Your task to perform on an android device: Set the phone to "Do not disturb". Image 0: 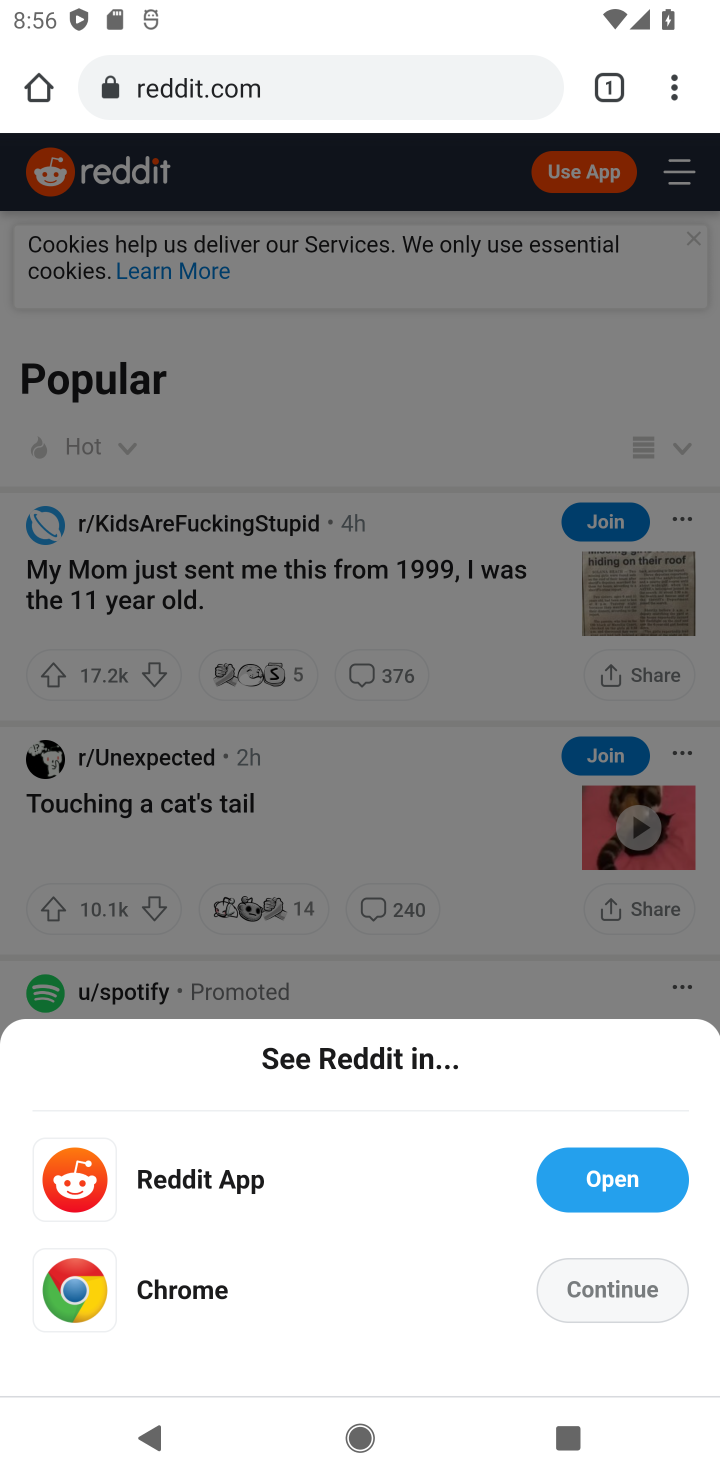
Step 0: press home button
Your task to perform on an android device: Set the phone to "Do not disturb". Image 1: 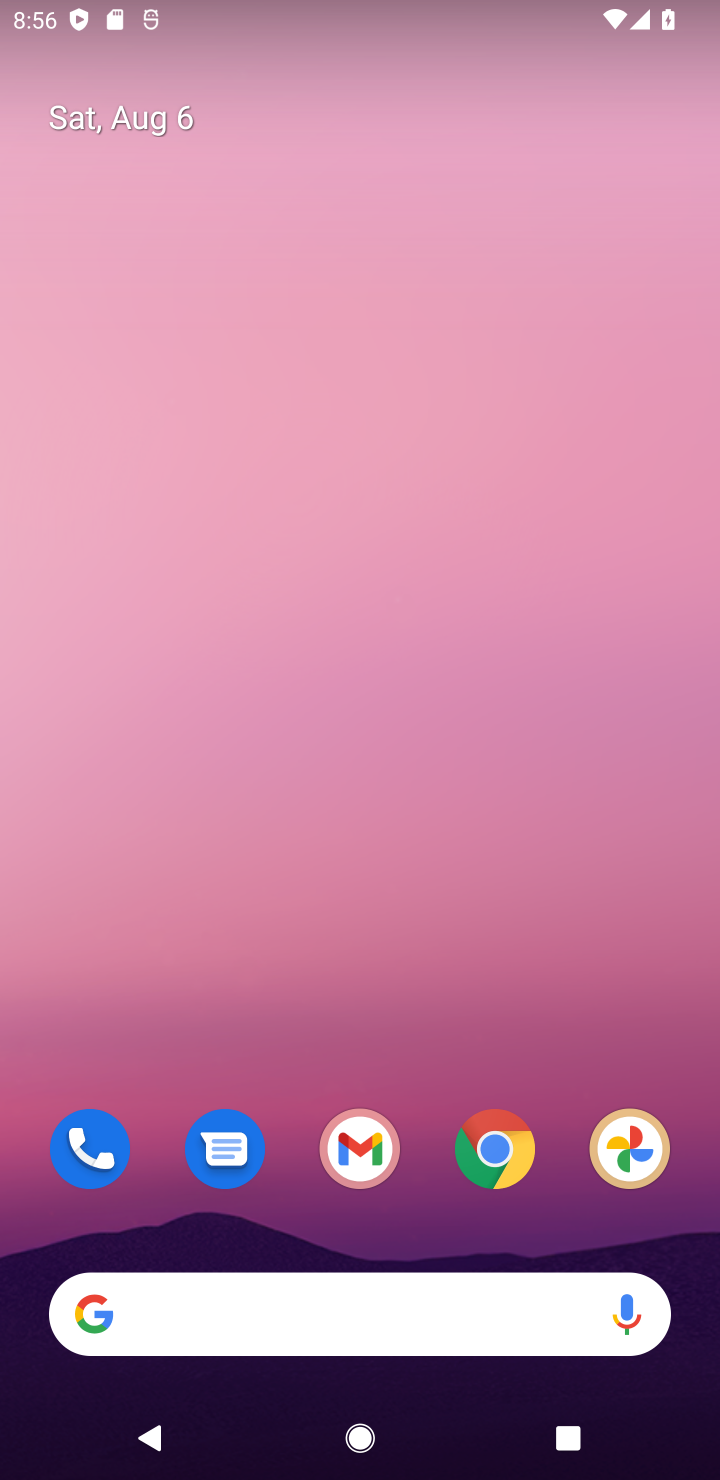
Step 1: drag from (317, 1305) to (238, 90)
Your task to perform on an android device: Set the phone to "Do not disturb". Image 2: 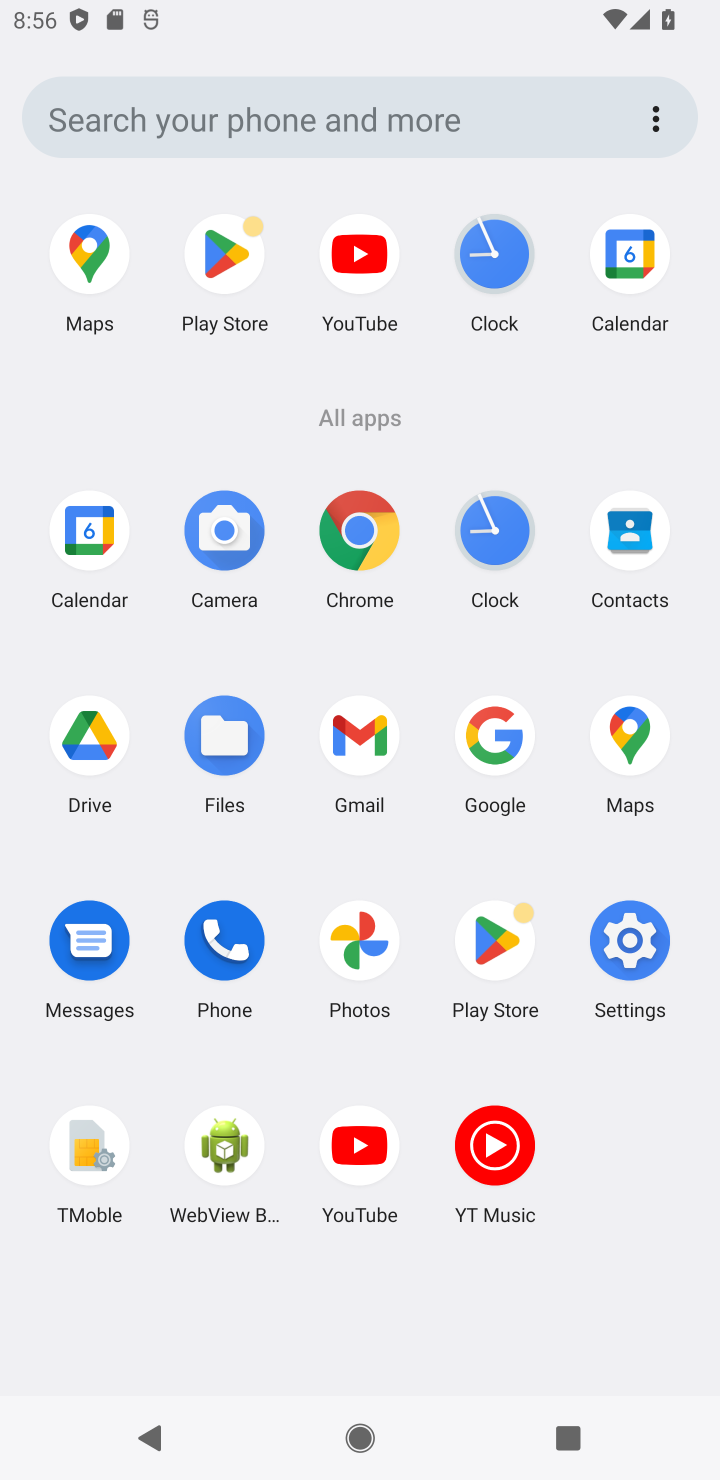
Step 2: click (622, 945)
Your task to perform on an android device: Set the phone to "Do not disturb". Image 3: 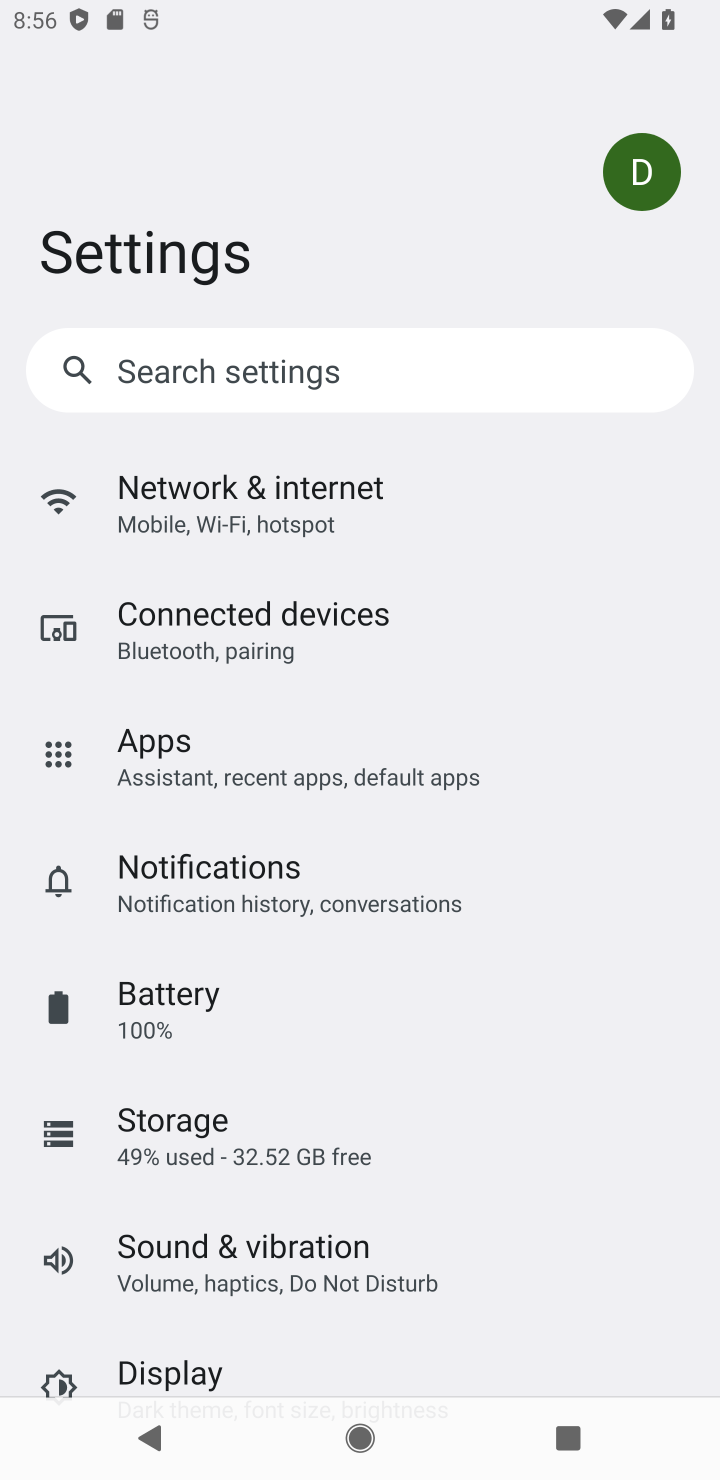
Step 3: click (287, 1238)
Your task to perform on an android device: Set the phone to "Do not disturb". Image 4: 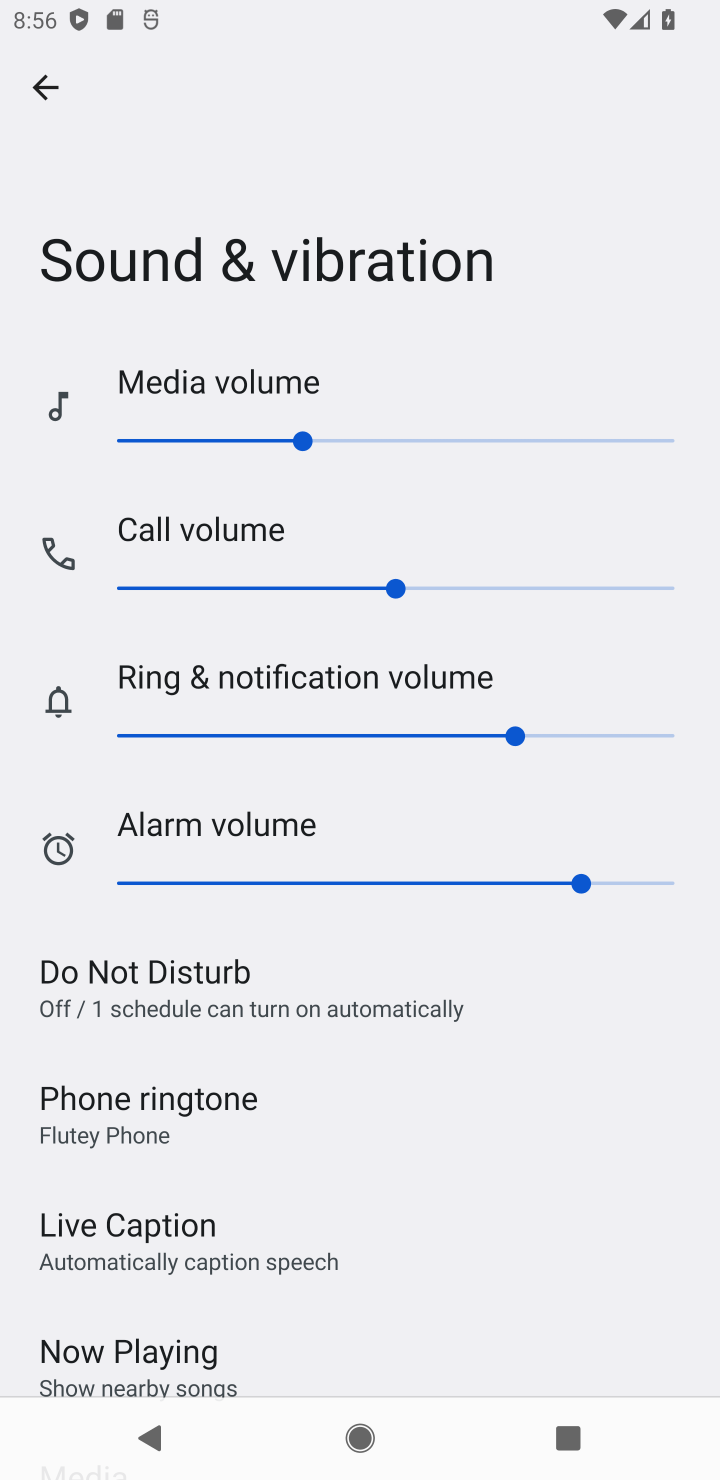
Step 4: click (403, 1006)
Your task to perform on an android device: Set the phone to "Do not disturb". Image 5: 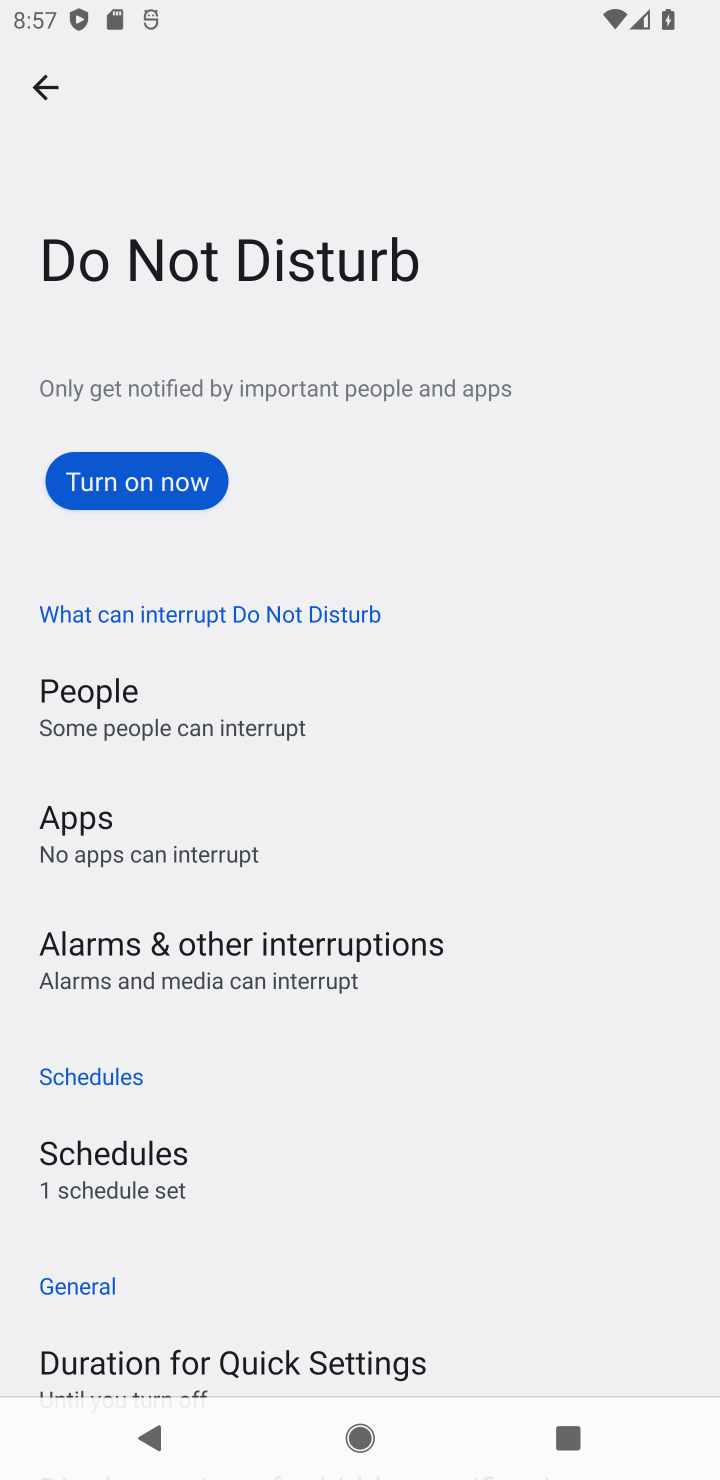
Step 5: click (157, 494)
Your task to perform on an android device: Set the phone to "Do not disturb". Image 6: 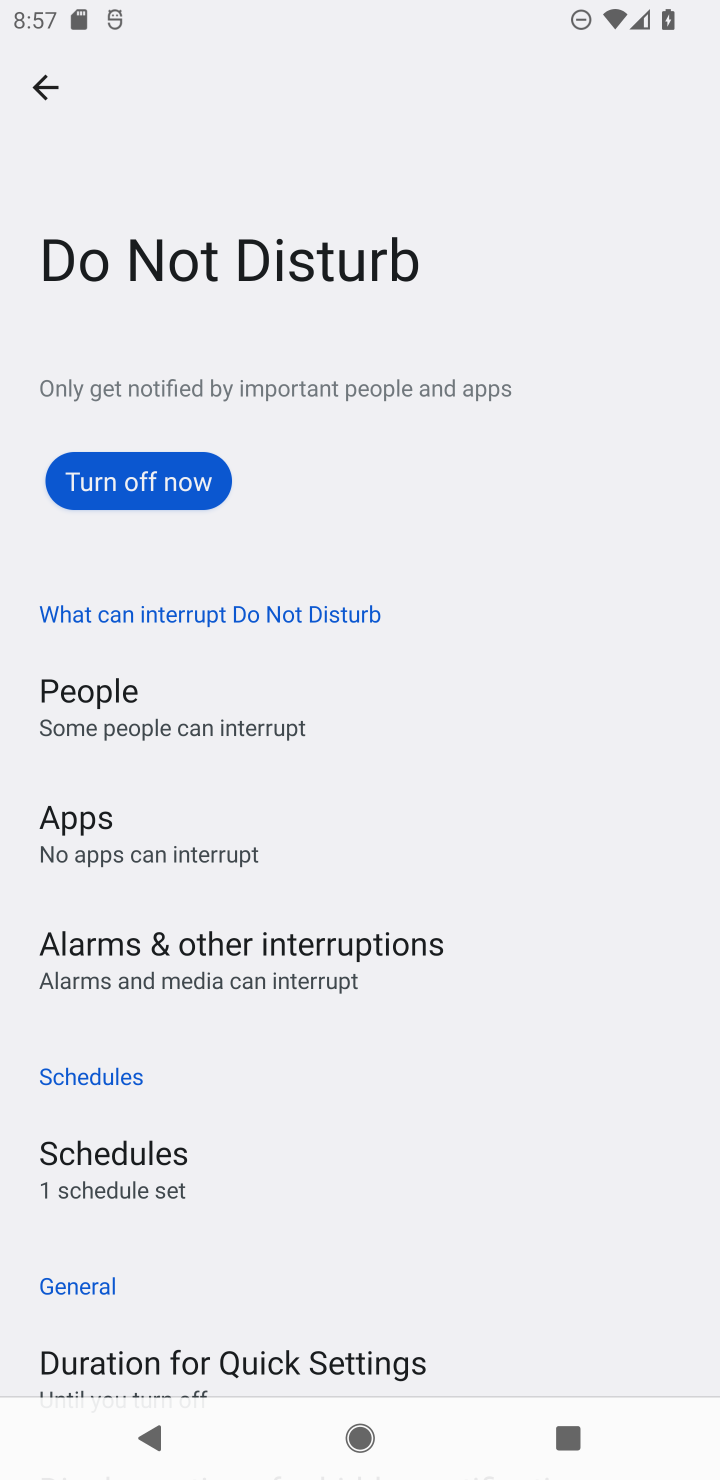
Step 6: task complete